Your task to perform on an android device: clear history in the chrome app Image 0: 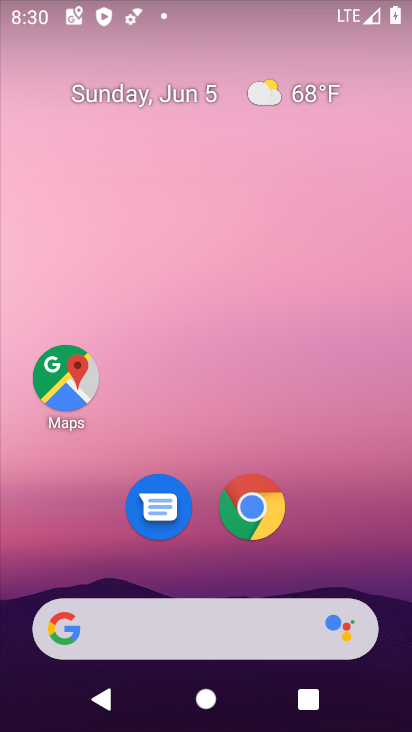
Step 0: click (258, 493)
Your task to perform on an android device: clear history in the chrome app Image 1: 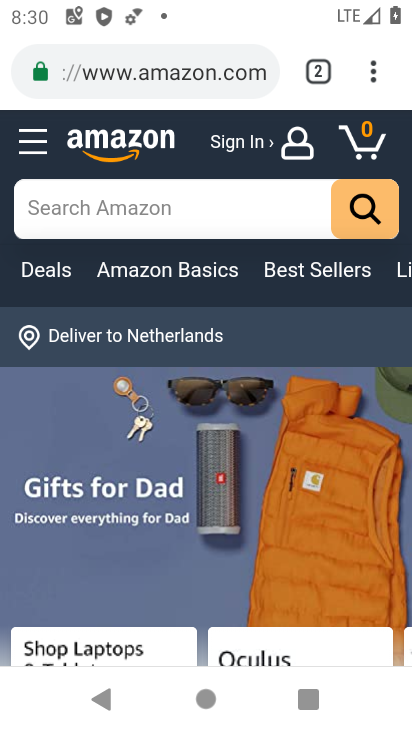
Step 1: click (370, 74)
Your task to perform on an android device: clear history in the chrome app Image 2: 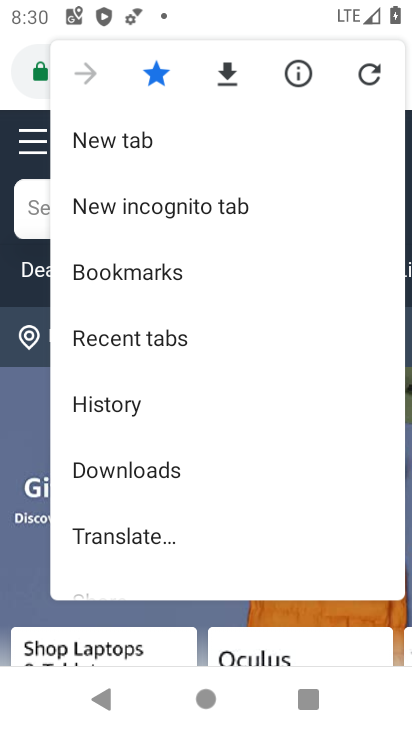
Step 2: drag from (153, 508) to (212, 243)
Your task to perform on an android device: clear history in the chrome app Image 3: 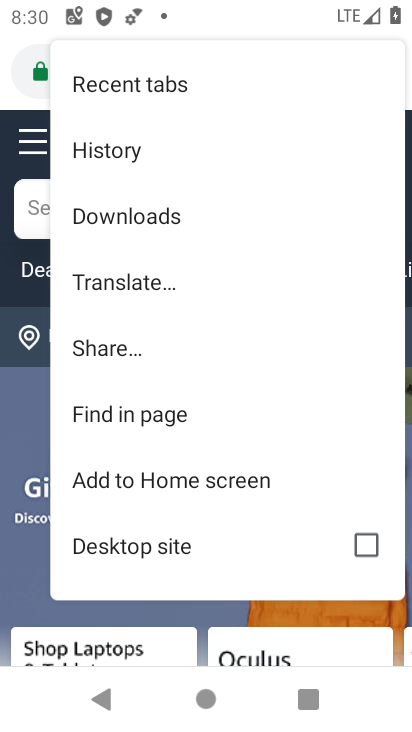
Step 3: click (131, 153)
Your task to perform on an android device: clear history in the chrome app Image 4: 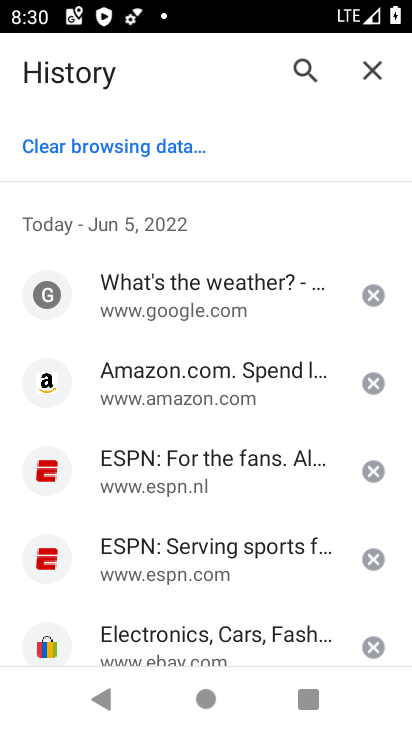
Step 4: click (146, 147)
Your task to perform on an android device: clear history in the chrome app Image 5: 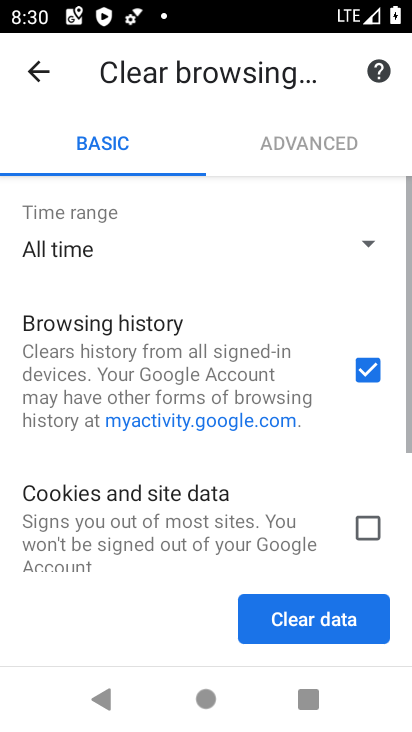
Step 5: drag from (279, 514) to (319, 227)
Your task to perform on an android device: clear history in the chrome app Image 6: 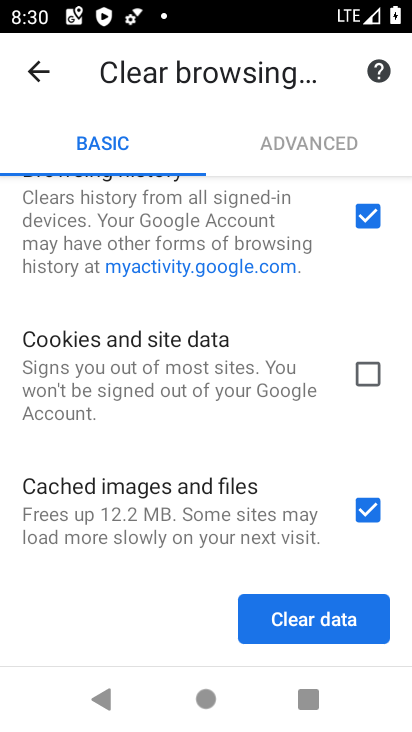
Step 6: click (350, 511)
Your task to perform on an android device: clear history in the chrome app Image 7: 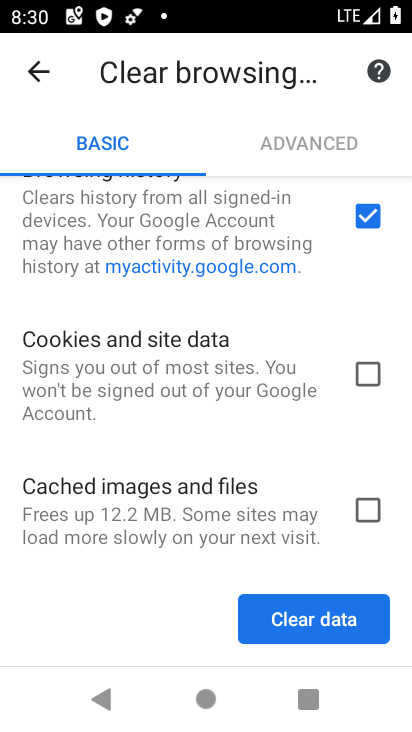
Step 7: click (332, 637)
Your task to perform on an android device: clear history in the chrome app Image 8: 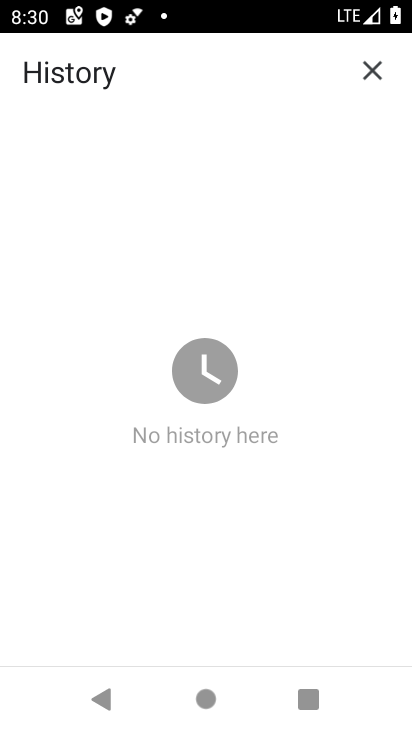
Step 8: task complete